Your task to perform on an android device: turn notification dots off Image 0: 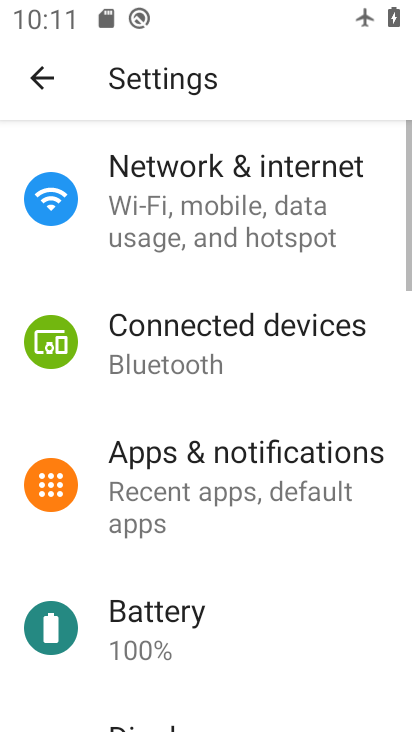
Step 0: press home button
Your task to perform on an android device: turn notification dots off Image 1: 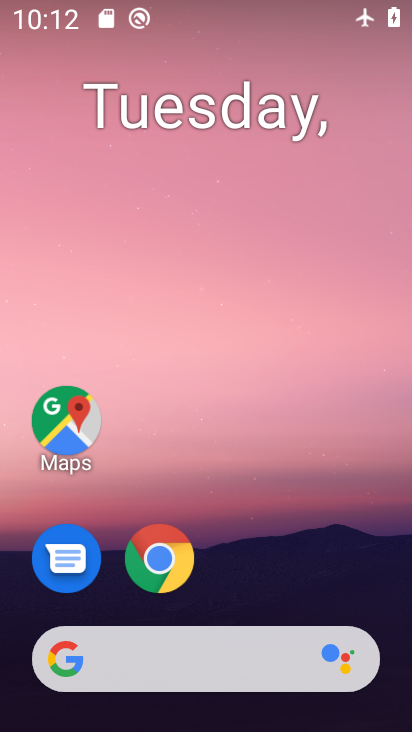
Step 1: drag from (365, 572) to (357, 57)
Your task to perform on an android device: turn notification dots off Image 2: 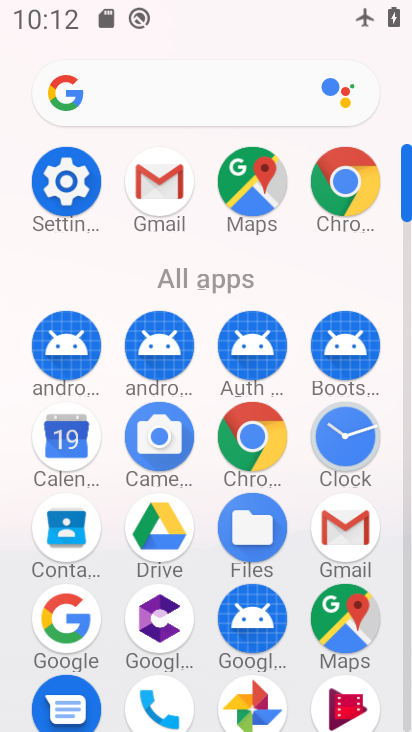
Step 2: click (80, 182)
Your task to perform on an android device: turn notification dots off Image 3: 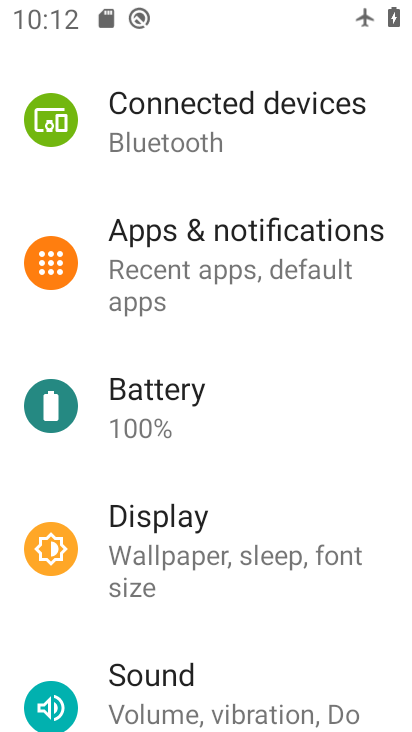
Step 3: drag from (301, 167) to (320, 320)
Your task to perform on an android device: turn notification dots off Image 4: 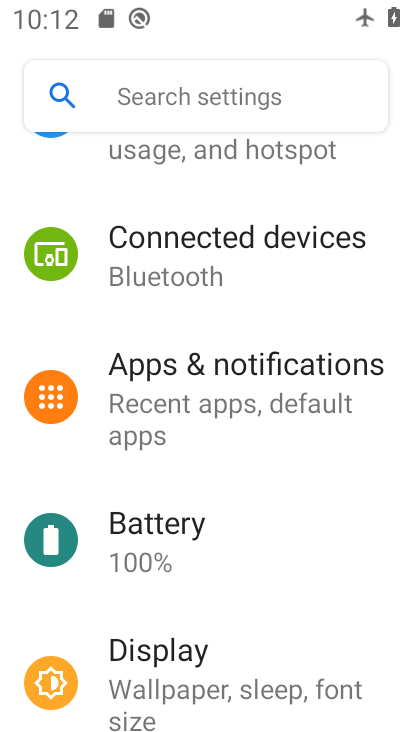
Step 4: drag from (372, 171) to (371, 347)
Your task to perform on an android device: turn notification dots off Image 5: 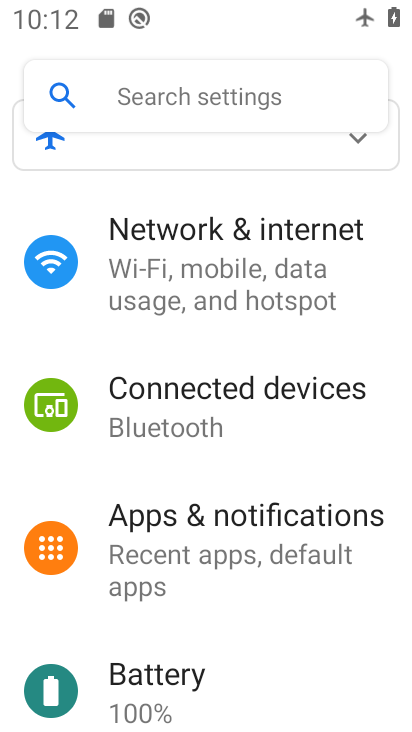
Step 5: click (310, 532)
Your task to perform on an android device: turn notification dots off Image 6: 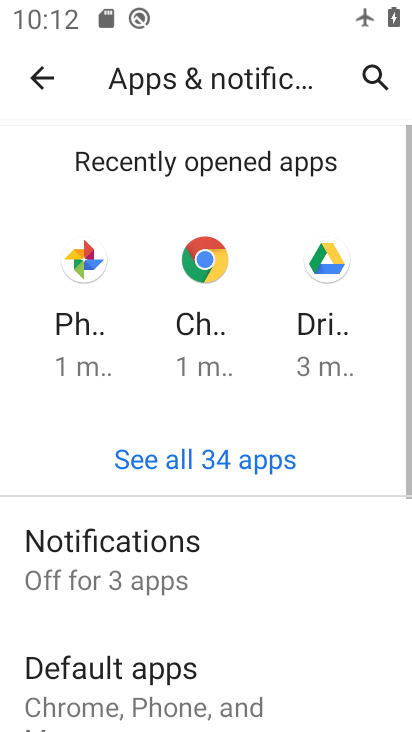
Step 6: drag from (313, 566) to (320, 472)
Your task to perform on an android device: turn notification dots off Image 7: 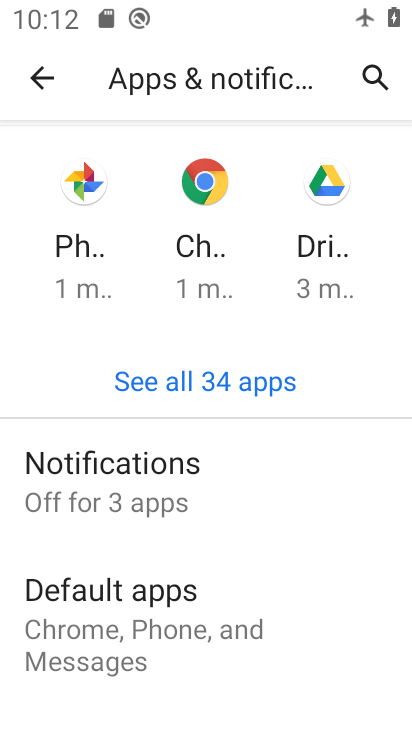
Step 7: click (193, 492)
Your task to perform on an android device: turn notification dots off Image 8: 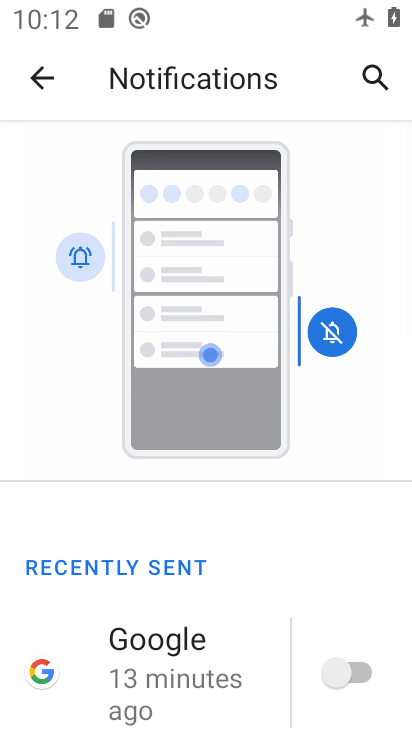
Step 8: drag from (281, 530) to (290, 429)
Your task to perform on an android device: turn notification dots off Image 9: 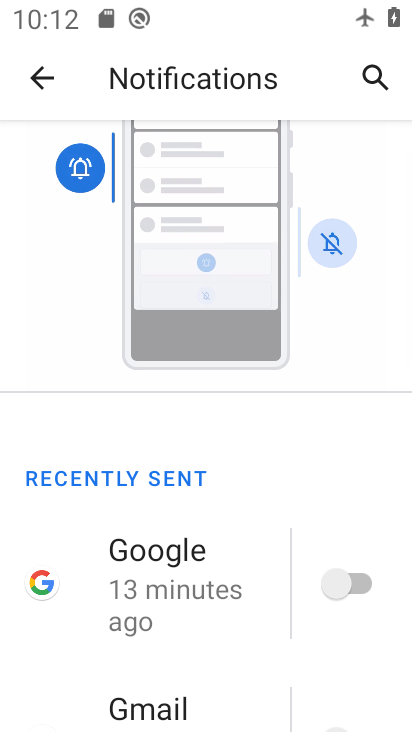
Step 9: drag from (255, 564) to (255, 453)
Your task to perform on an android device: turn notification dots off Image 10: 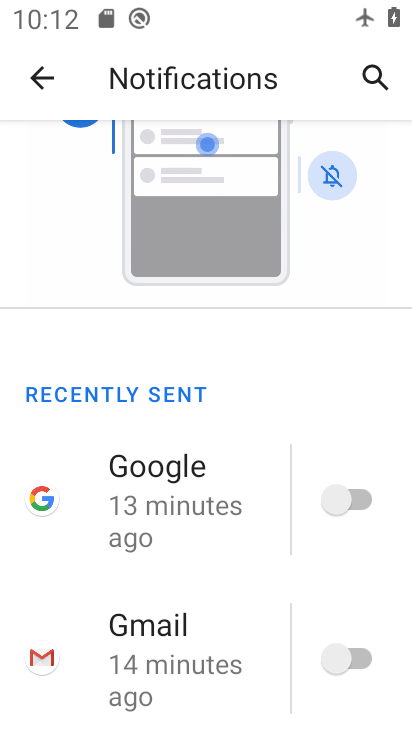
Step 10: drag from (247, 583) to (244, 465)
Your task to perform on an android device: turn notification dots off Image 11: 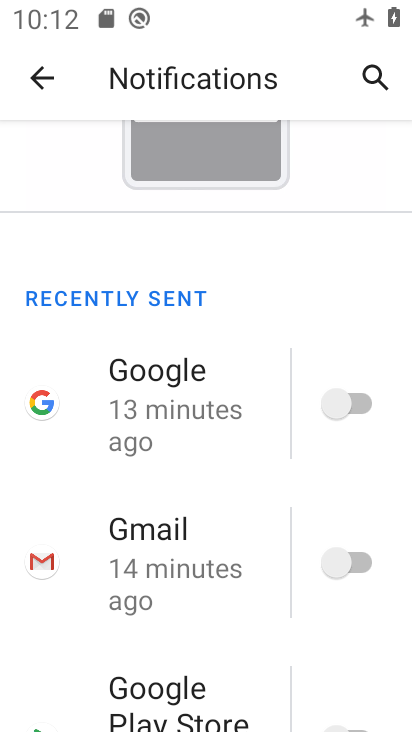
Step 11: drag from (246, 592) to (246, 466)
Your task to perform on an android device: turn notification dots off Image 12: 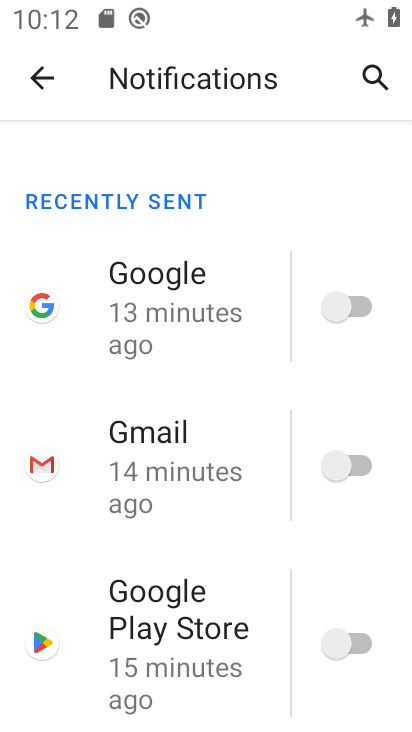
Step 12: drag from (257, 644) to (257, 510)
Your task to perform on an android device: turn notification dots off Image 13: 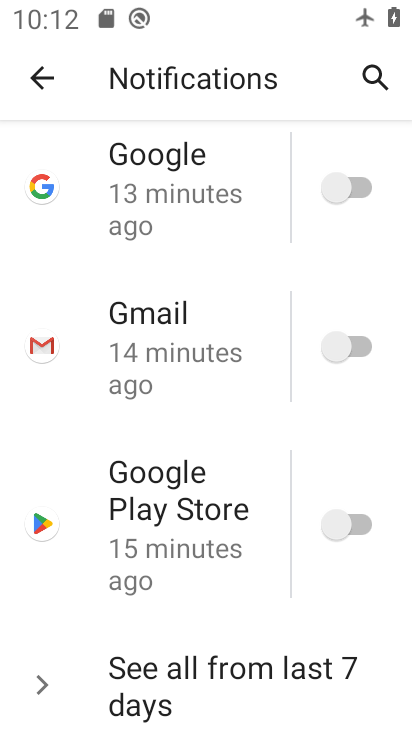
Step 13: drag from (275, 622) to (275, 352)
Your task to perform on an android device: turn notification dots off Image 14: 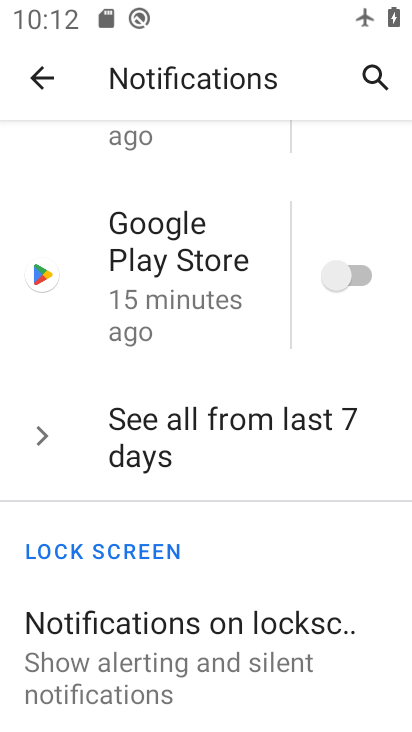
Step 14: drag from (275, 527) to (277, 437)
Your task to perform on an android device: turn notification dots off Image 15: 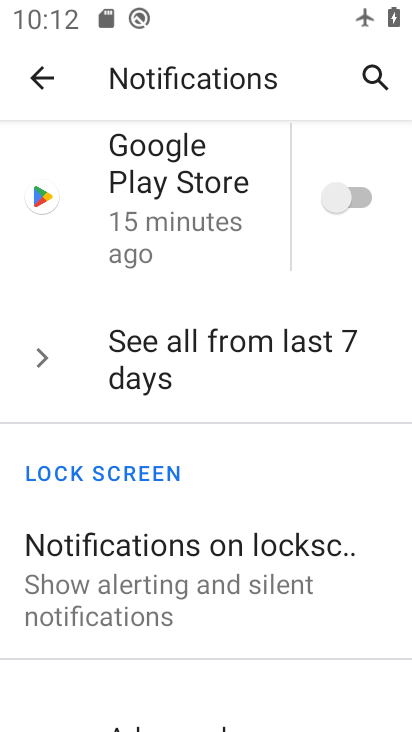
Step 15: drag from (265, 562) to (267, 352)
Your task to perform on an android device: turn notification dots off Image 16: 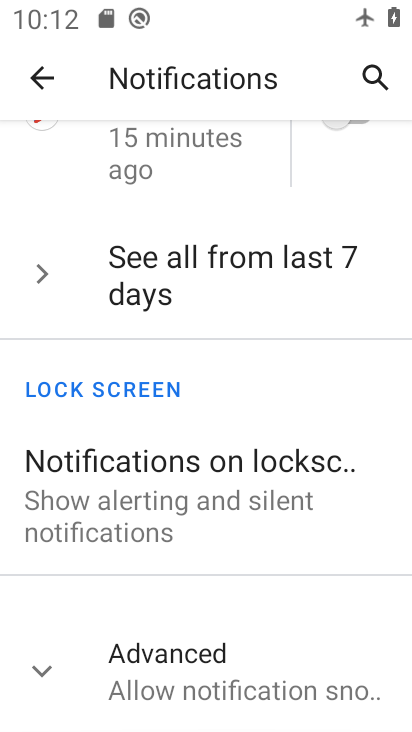
Step 16: click (258, 640)
Your task to perform on an android device: turn notification dots off Image 17: 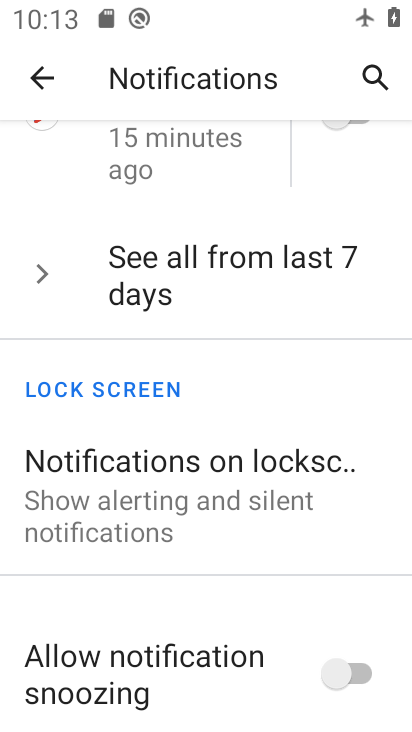
Step 17: drag from (245, 675) to (261, 546)
Your task to perform on an android device: turn notification dots off Image 18: 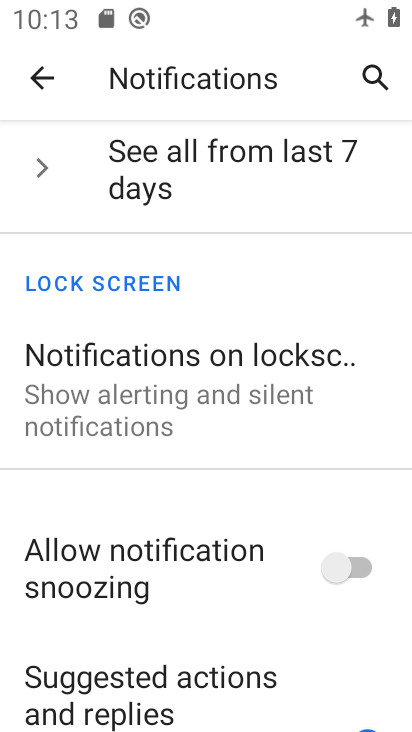
Step 18: drag from (282, 678) to (289, 402)
Your task to perform on an android device: turn notification dots off Image 19: 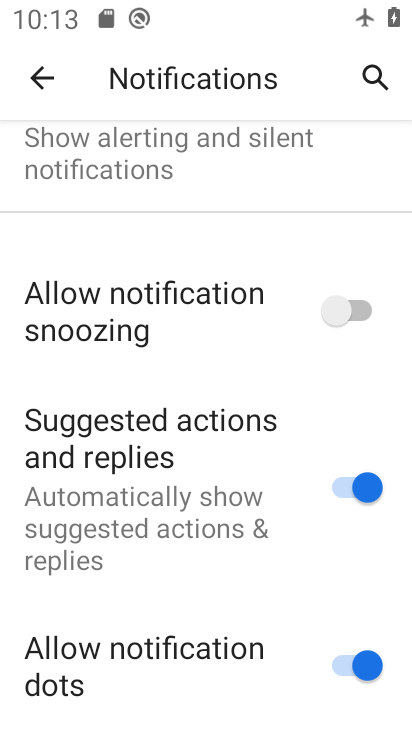
Step 19: click (328, 663)
Your task to perform on an android device: turn notification dots off Image 20: 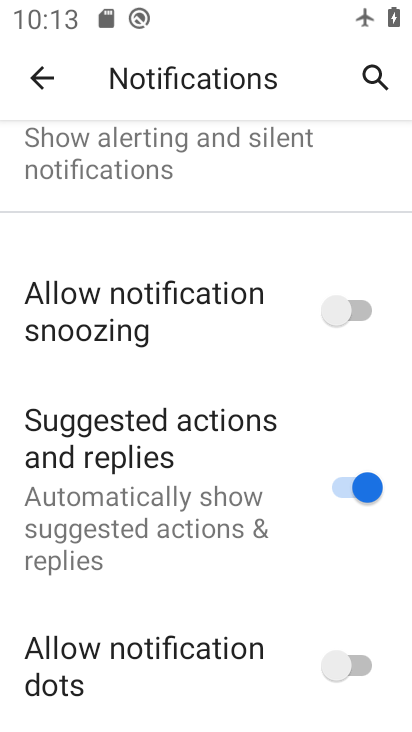
Step 20: task complete